Your task to perform on an android device: uninstall "File Manager" Image 0: 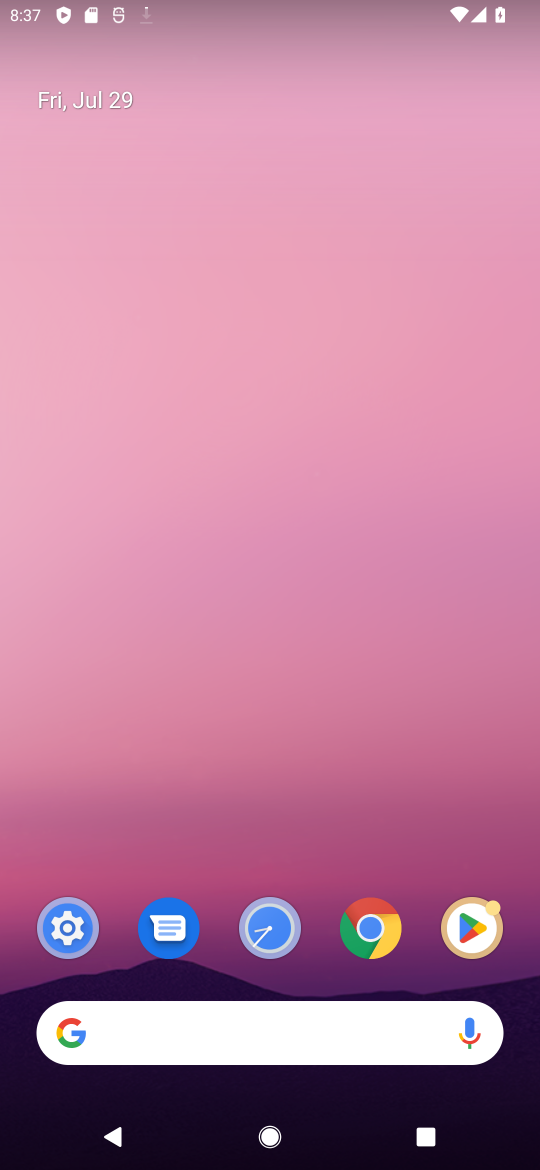
Step 0: drag from (302, 1032) to (253, 25)
Your task to perform on an android device: uninstall "File Manager" Image 1: 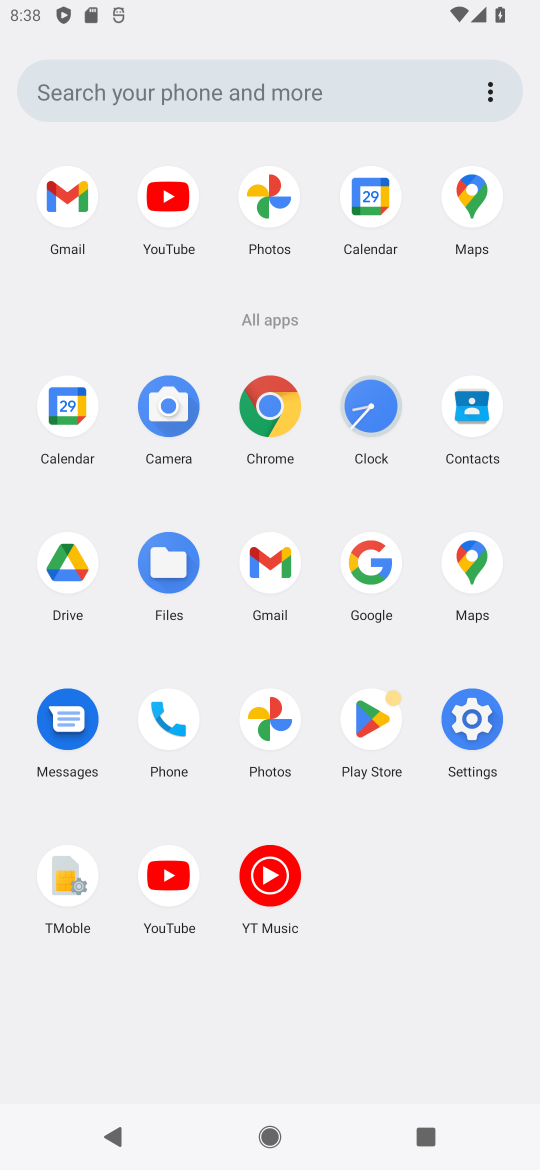
Step 1: click (372, 727)
Your task to perform on an android device: uninstall "File Manager" Image 2: 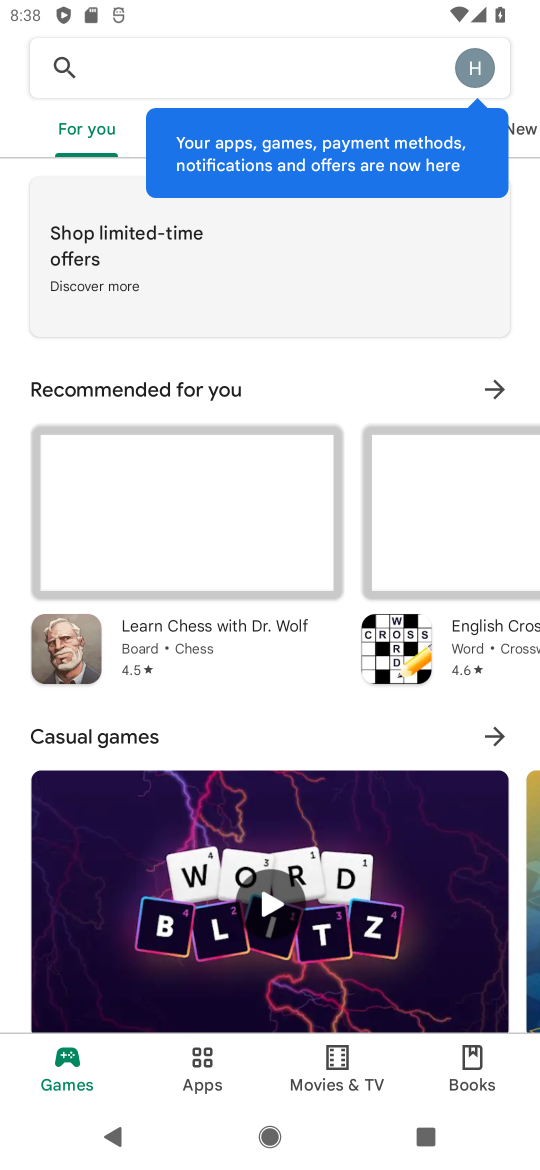
Step 2: click (372, 727)
Your task to perform on an android device: uninstall "File Manager" Image 3: 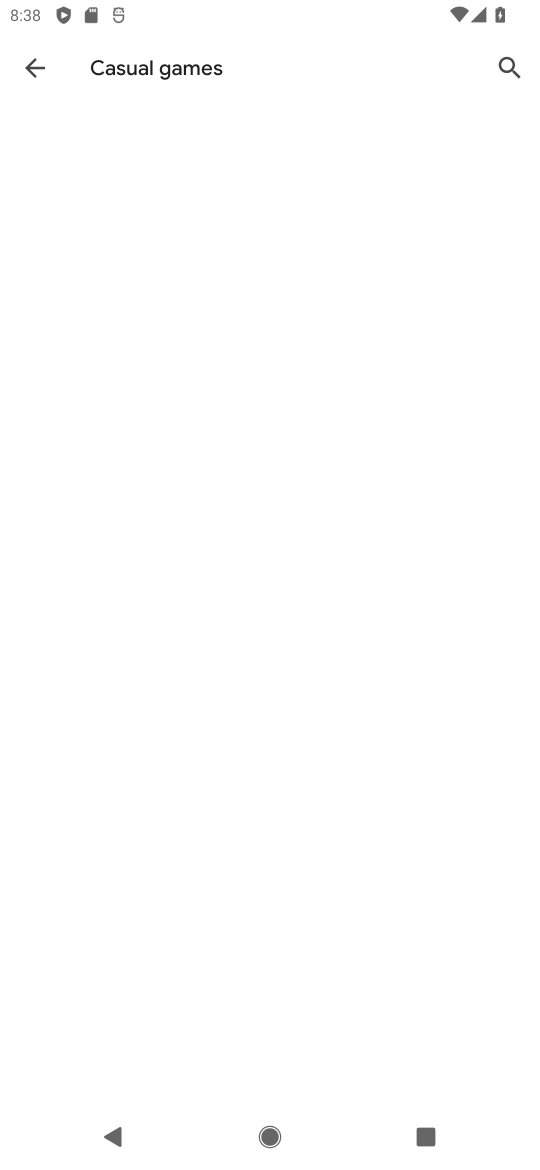
Step 3: click (291, 66)
Your task to perform on an android device: uninstall "File Manager" Image 4: 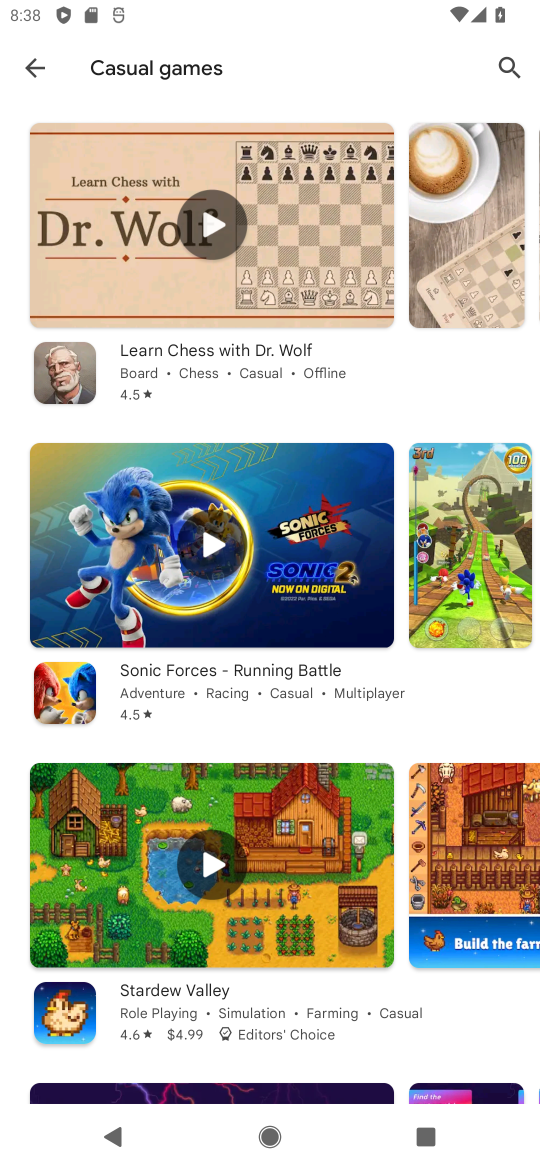
Step 4: click (496, 55)
Your task to perform on an android device: uninstall "File Manager" Image 5: 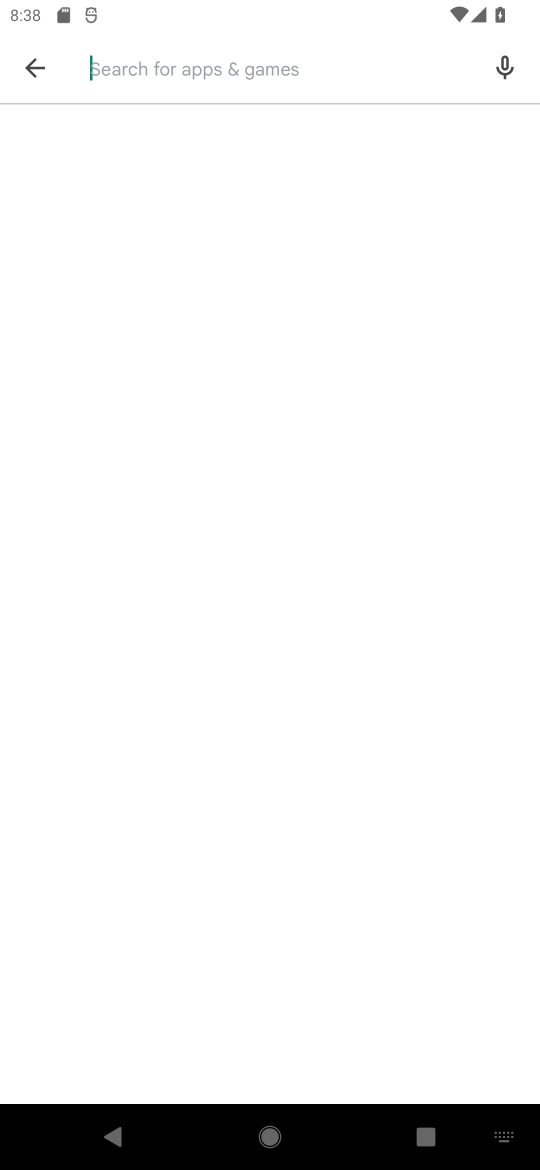
Step 5: type "File Manager"
Your task to perform on an android device: uninstall "File Manager" Image 6: 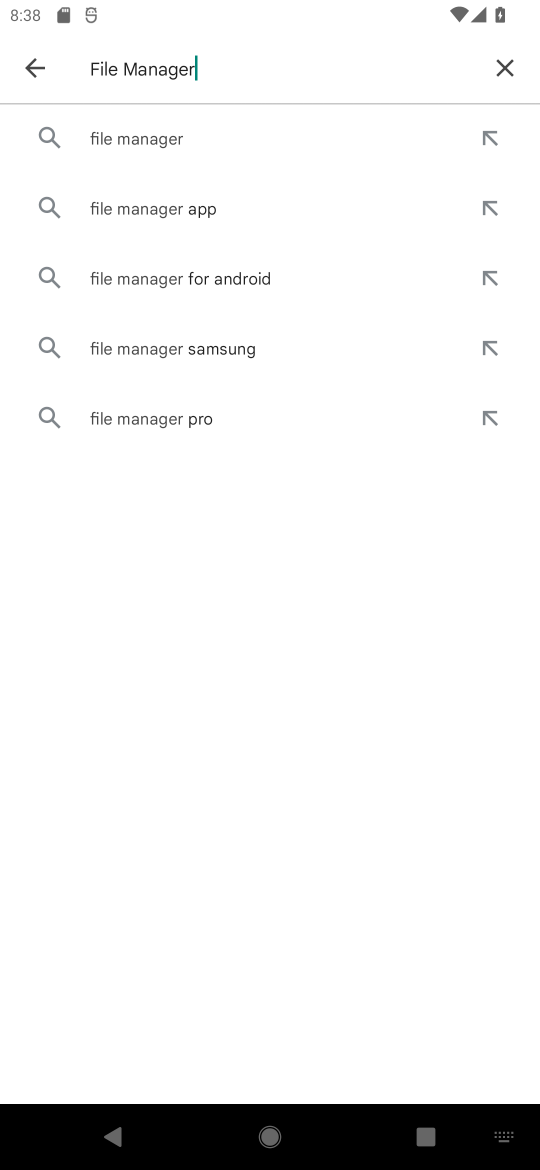
Step 6: click (123, 138)
Your task to perform on an android device: uninstall "File Manager" Image 7: 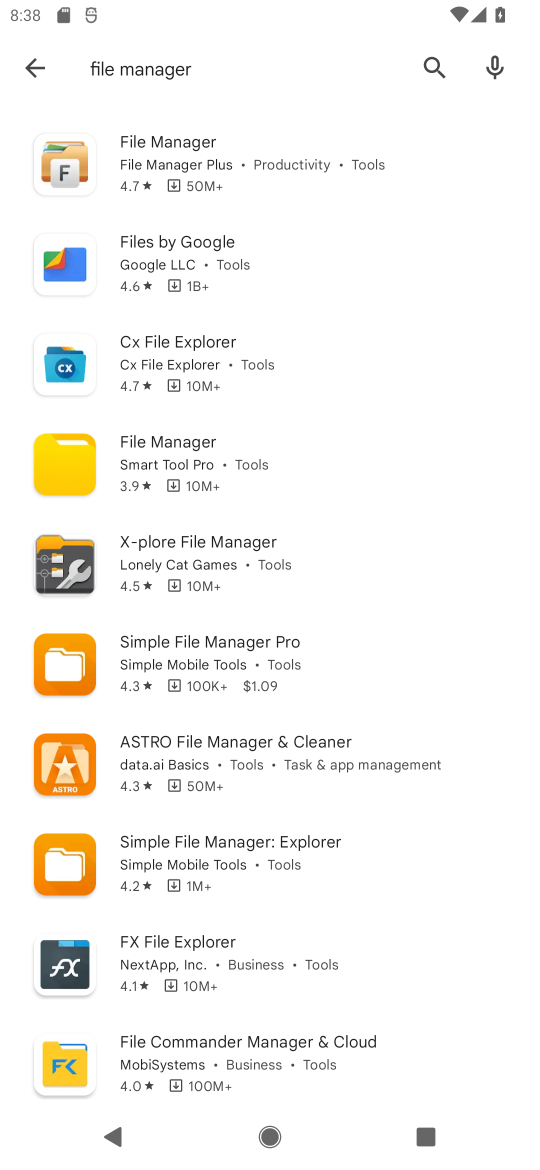
Step 7: task complete